Your task to perform on an android device: Go to display settings Image 0: 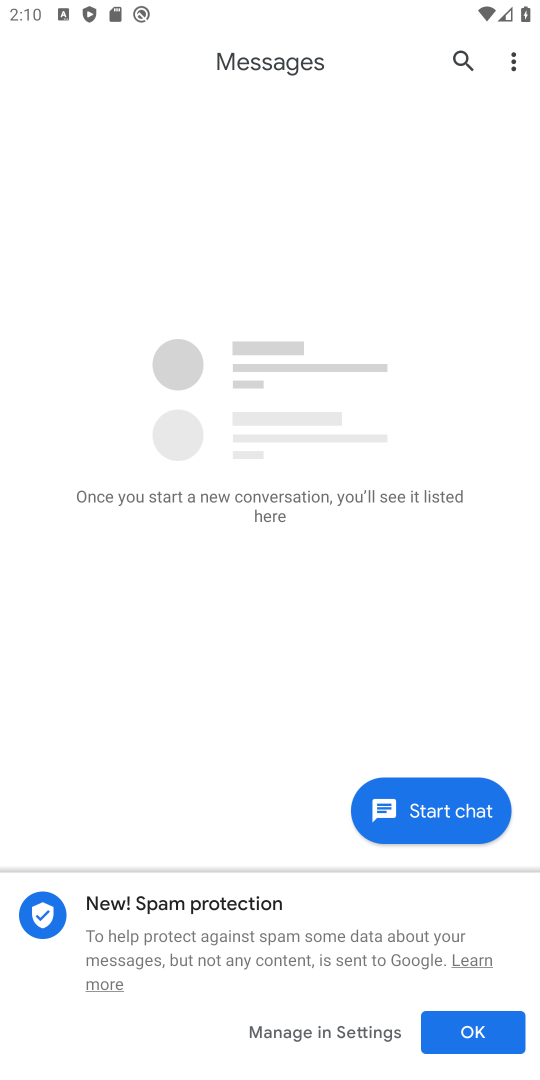
Step 0: press home button
Your task to perform on an android device: Go to display settings Image 1: 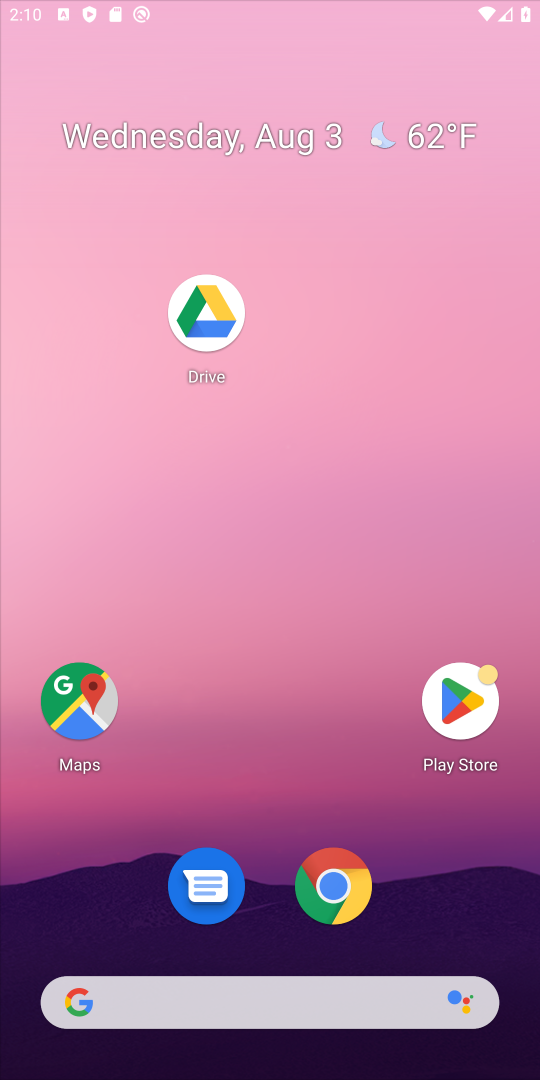
Step 1: drag from (322, 834) to (305, 99)
Your task to perform on an android device: Go to display settings Image 2: 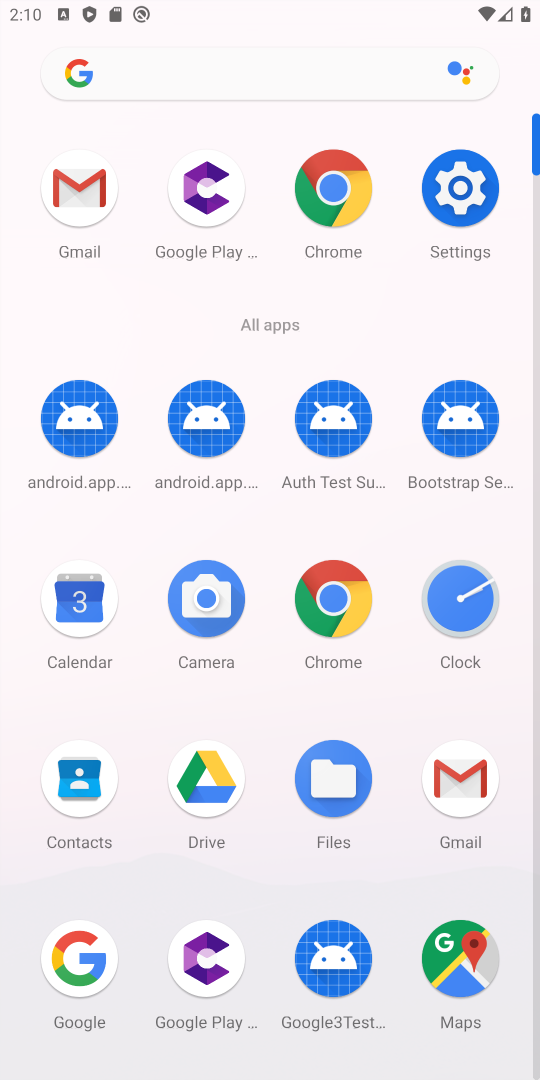
Step 2: click (473, 177)
Your task to perform on an android device: Go to display settings Image 3: 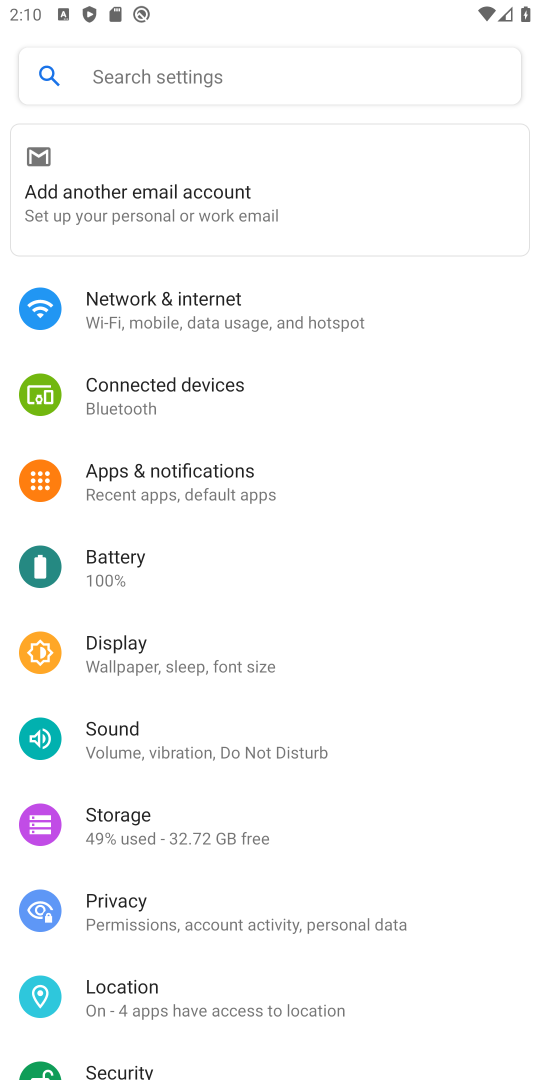
Step 3: click (157, 643)
Your task to perform on an android device: Go to display settings Image 4: 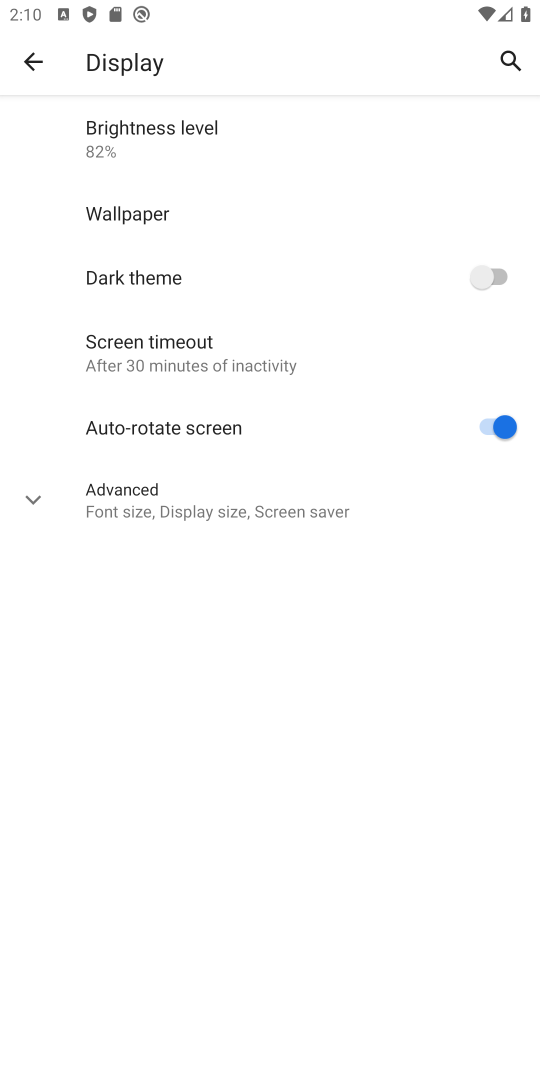
Step 4: task complete